Your task to perform on an android device: turn pop-ups off in chrome Image 0: 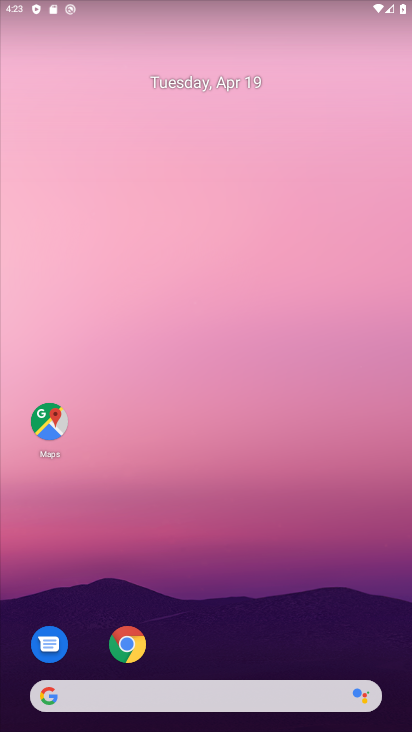
Step 0: click (129, 654)
Your task to perform on an android device: turn pop-ups off in chrome Image 1: 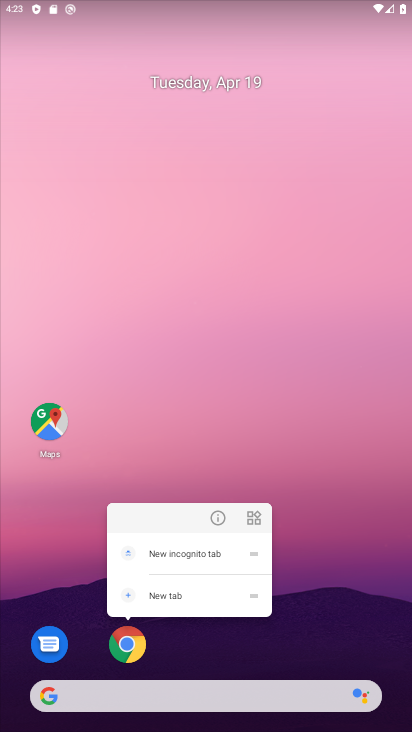
Step 1: click (140, 646)
Your task to perform on an android device: turn pop-ups off in chrome Image 2: 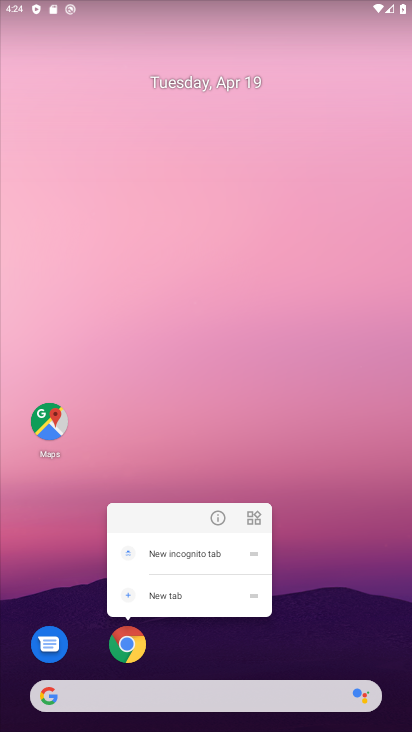
Step 2: click (142, 640)
Your task to perform on an android device: turn pop-ups off in chrome Image 3: 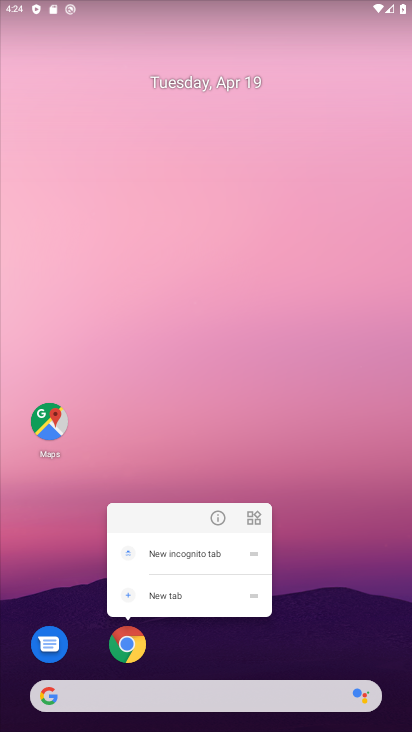
Step 3: click (131, 654)
Your task to perform on an android device: turn pop-ups off in chrome Image 4: 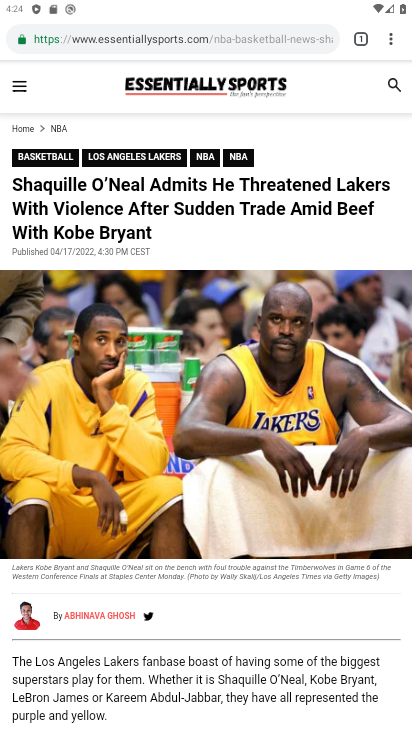
Step 4: drag from (391, 43) to (259, 518)
Your task to perform on an android device: turn pop-ups off in chrome Image 5: 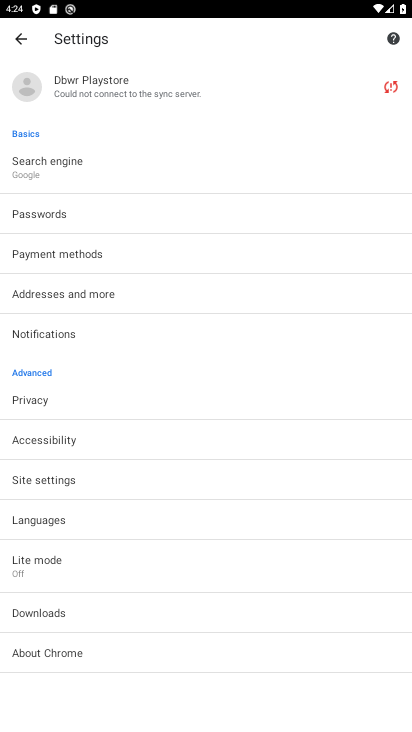
Step 5: click (61, 484)
Your task to perform on an android device: turn pop-ups off in chrome Image 6: 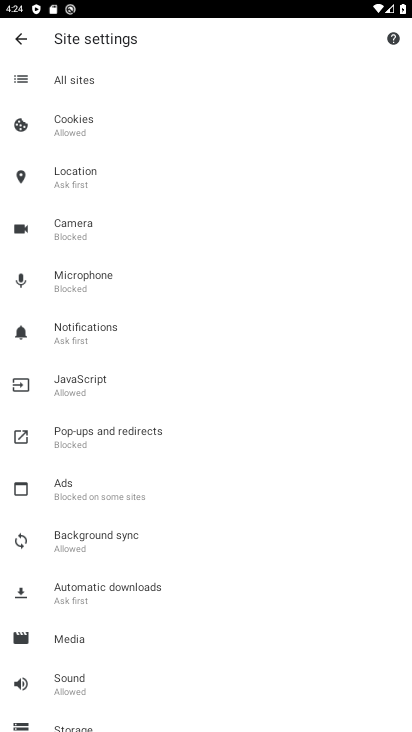
Step 6: click (90, 447)
Your task to perform on an android device: turn pop-ups off in chrome Image 7: 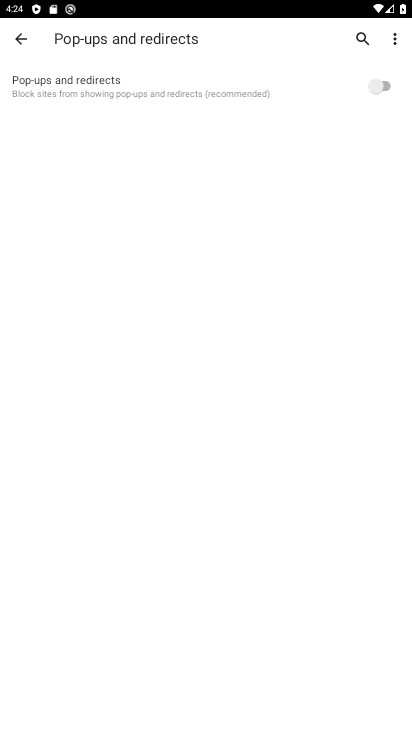
Step 7: task complete